Your task to perform on an android device: What is the recent news? Image 0: 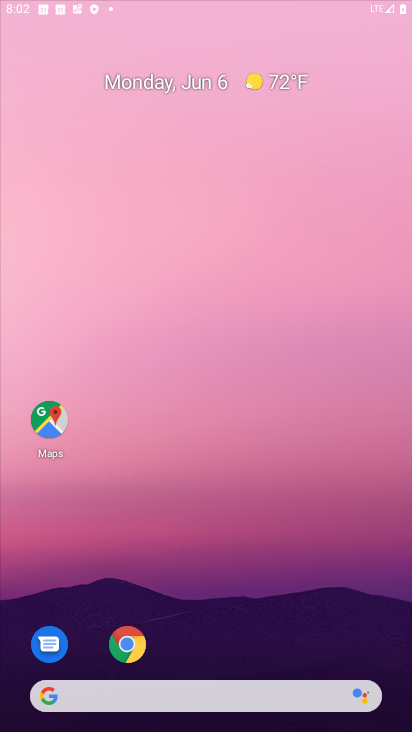
Step 0: click (233, 292)
Your task to perform on an android device: What is the recent news? Image 1: 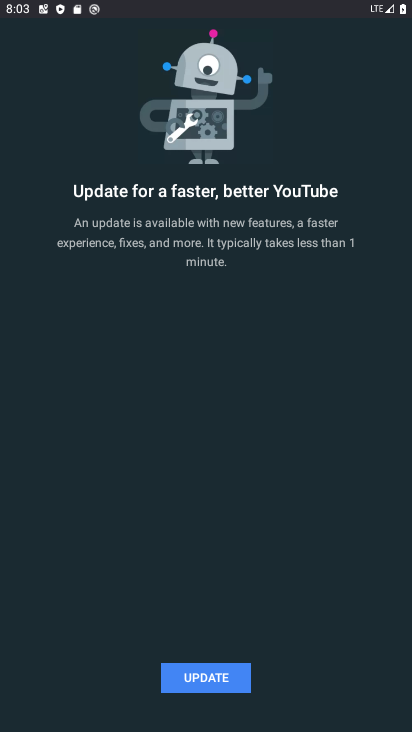
Step 1: press back button
Your task to perform on an android device: What is the recent news? Image 2: 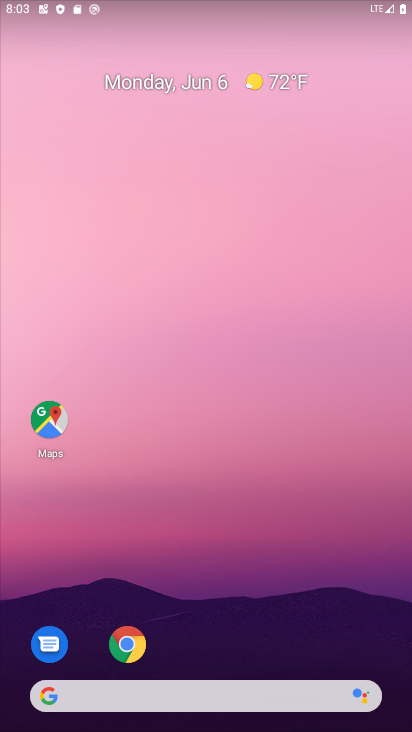
Step 2: click (167, 693)
Your task to perform on an android device: What is the recent news? Image 3: 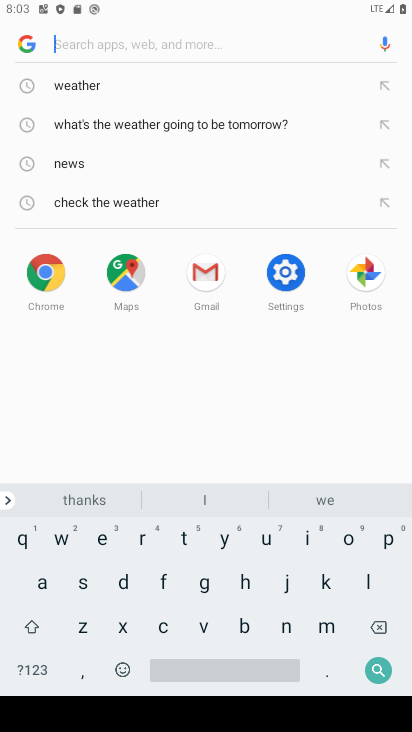
Step 3: click (137, 540)
Your task to perform on an android device: What is the recent news? Image 4: 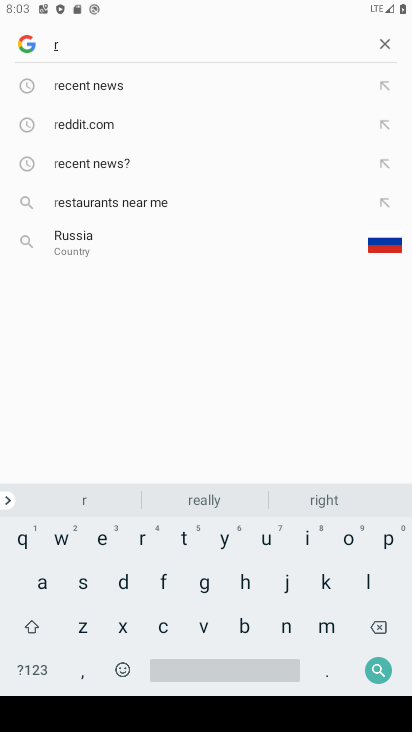
Step 4: click (125, 86)
Your task to perform on an android device: What is the recent news? Image 5: 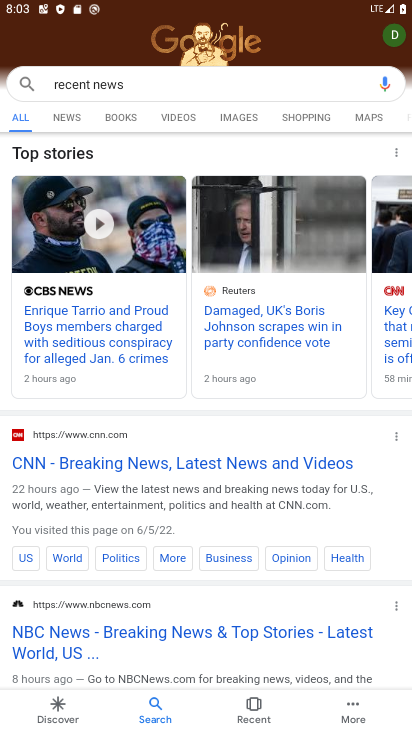
Step 5: task complete